Your task to perform on an android device: Do I have any events today? Image 0: 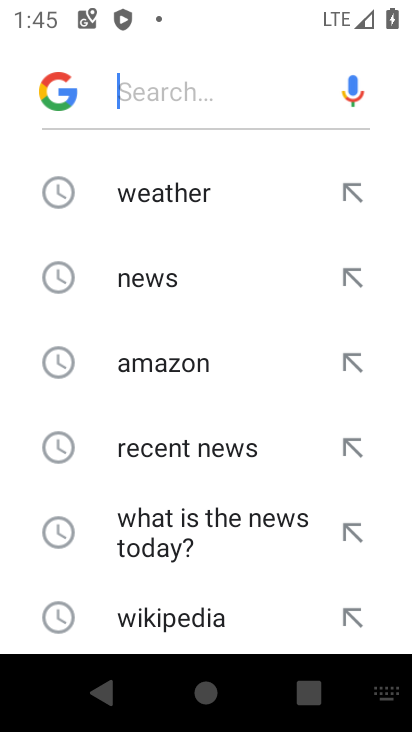
Step 0: press home button
Your task to perform on an android device: Do I have any events today? Image 1: 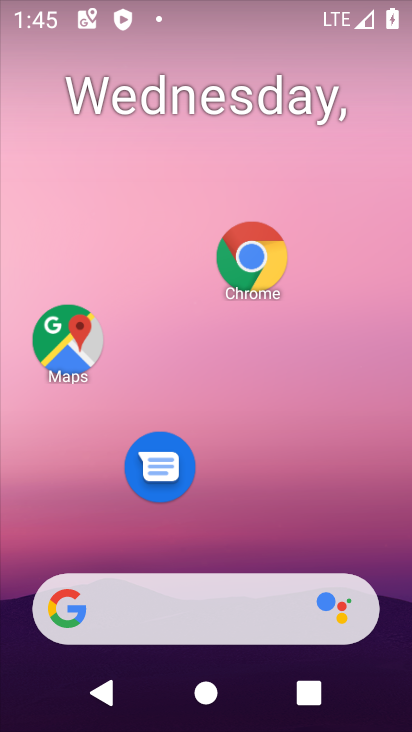
Step 1: drag from (260, 512) to (266, 108)
Your task to perform on an android device: Do I have any events today? Image 2: 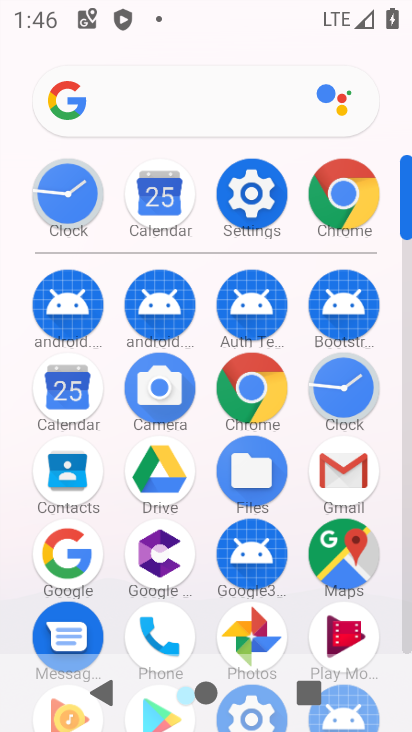
Step 2: click (150, 197)
Your task to perform on an android device: Do I have any events today? Image 3: 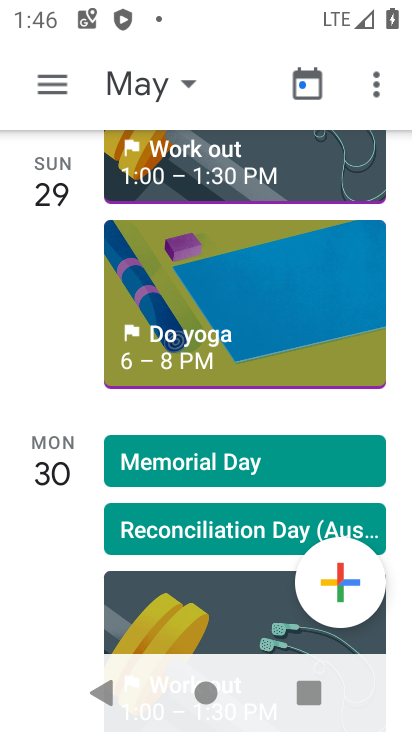
Step 3: click (139, 74)
Your task to perform on an android device: Do I have any events today? Image 4: 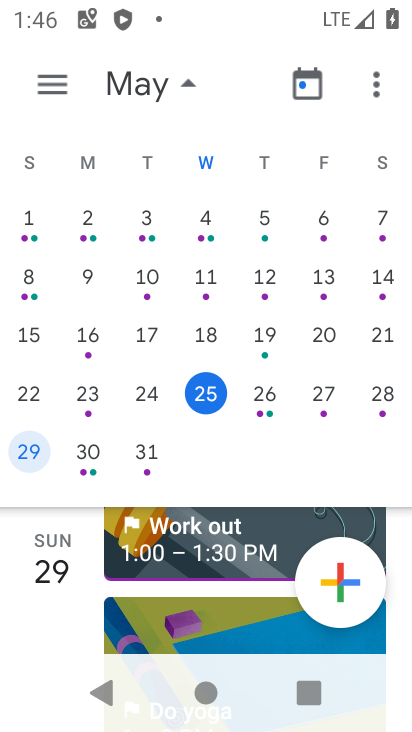
Step 4: click (217, 376)
Your task to perform on an android device: Do I have any events today? Image 5: 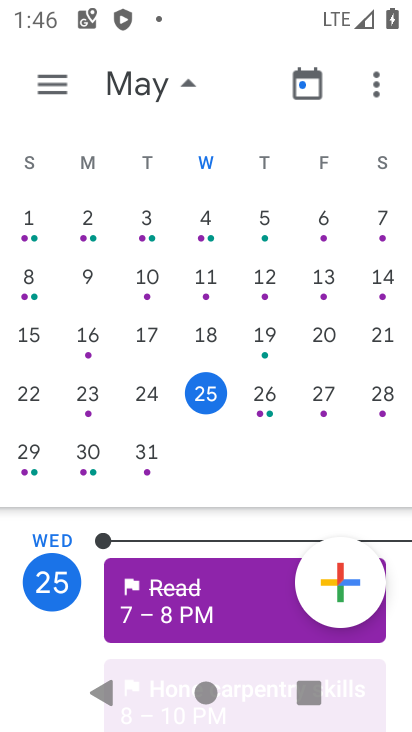
Step 5: task complete